Your task to perform on an android device: Show me popular videos on Youtube Image 0: 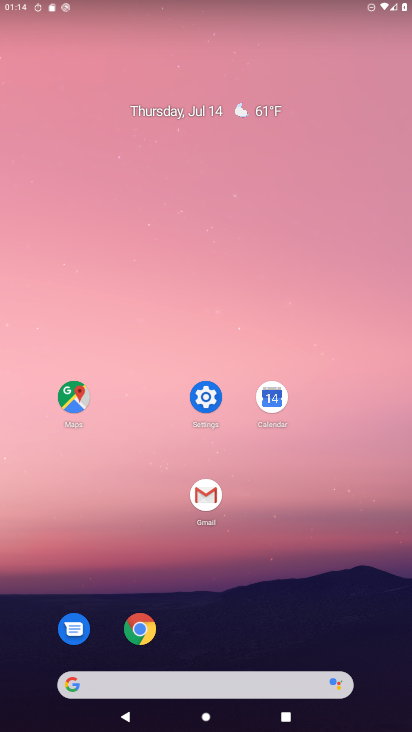
Step 0: drag from (335, 418) to (290, 152)
Your task to perform on an android device: Show me popular videos on Youtube Image 1: 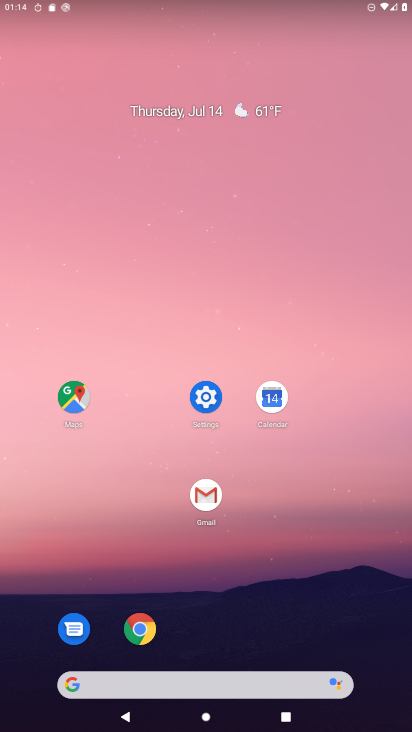
Step 1: drag from (385, 671) to (274, 106)
Your task to perform on an android device: Show me popular videos on Youtube Image 2: 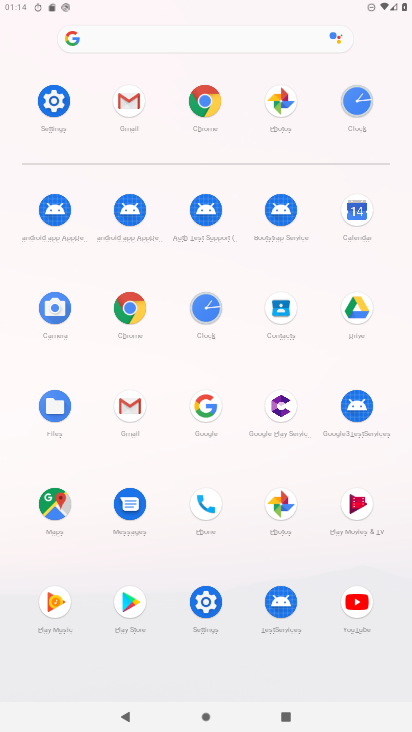
Step 2: click (348, 604)
Your task to perform on an android device: Show me popular videos on Youtube Image 3: 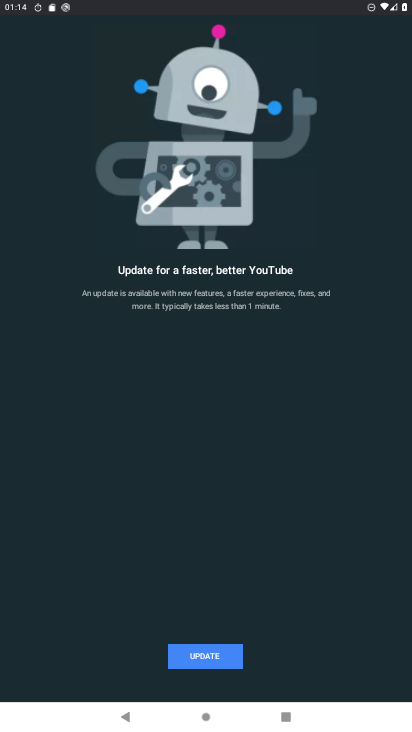
Step 3: drag from (228, 654) to (159, 654)
Your task to perform on an android device: Show me popular videos on Youtube Image 4: 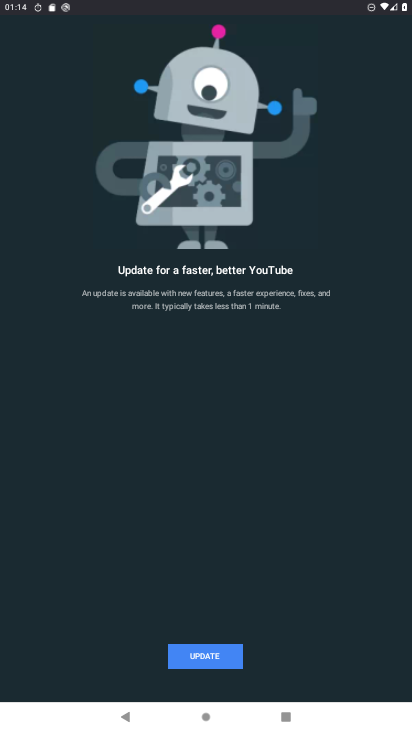
Step 4: click (208, 652)
Your task to perform on an android device: Show me popular videos on Youtube Image 5: 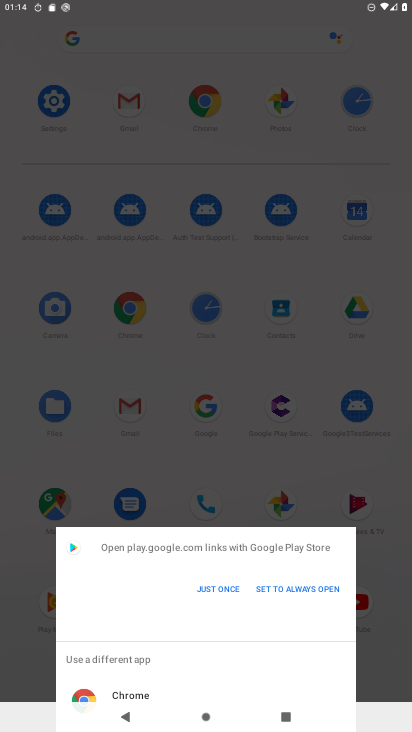
Step 5: click (206, 595)
Your task to perform on an android device: Show me popular videos on Youtube Image 6: 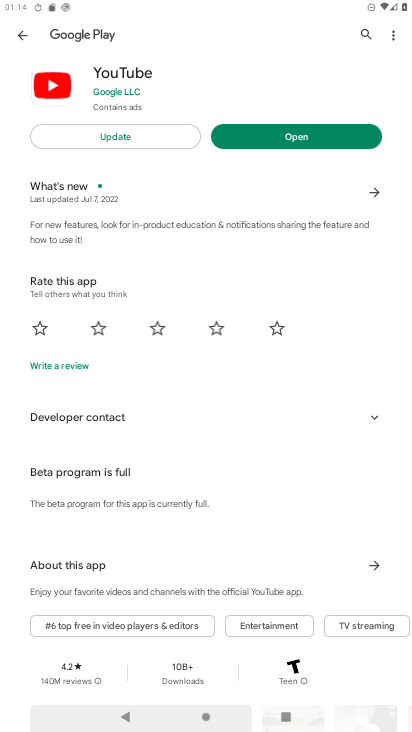
Step 6: click (168, 133)
Your task to perform on an android device: Show me popular videos on Youtube Image 7: 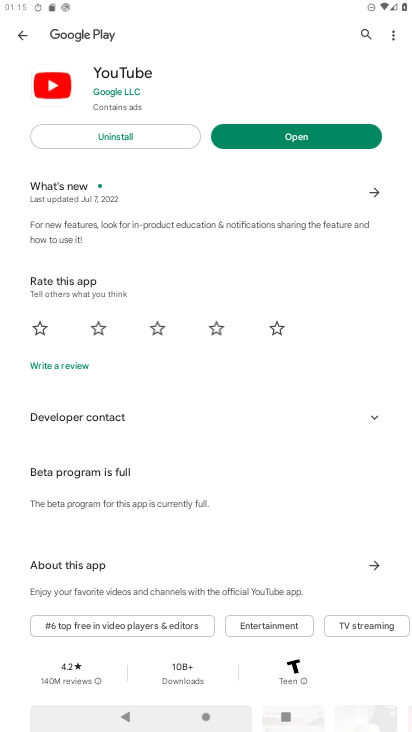
Step 7: click (310, 141)
Your task to perform on an android device: Show me popular videos on Youtube Image 8: 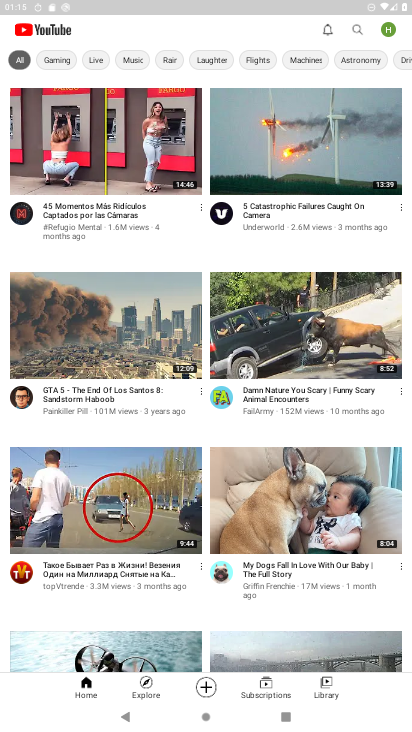
Step 8: drag from (319, 615) to (274, 155)
Your task to perform on an android device: Show me popular videos on Youtube Image 9: 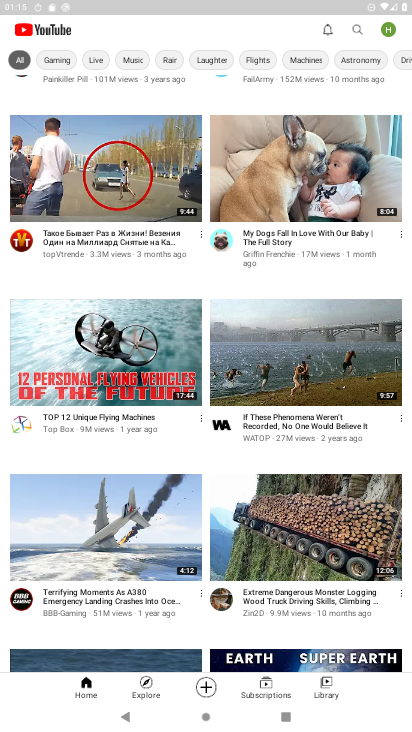
Step 9: drag from (217, 261) to (226, 674)
Your task to perform on an android device: Show me popular videos on Youtube Image 10: 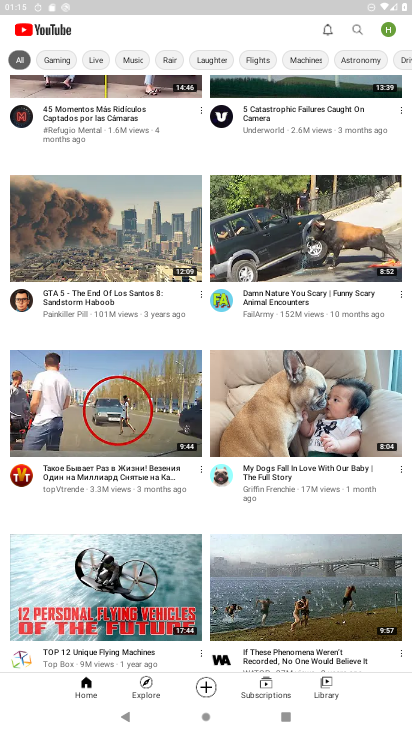
Step 10: click (359, 29)
Your task to perform on an android device: Show me popular videos on Youtube Image 11: 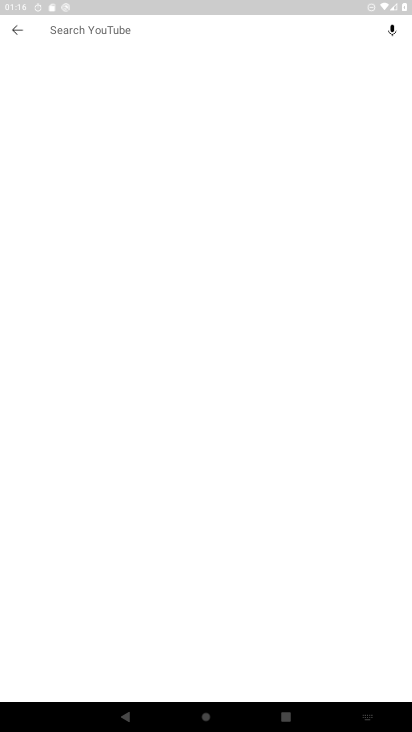
Step 11: type "popular videos on Youtube"
Your task to perform on an android device: Show me popular videos on Youtube Image 12: 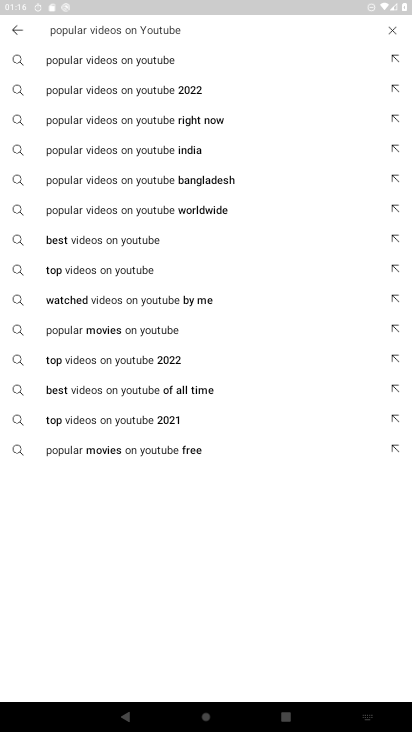
Step 12: click (154, 51)
Your task to perform on an android device: Show me popular videos on Youtube Image 13: 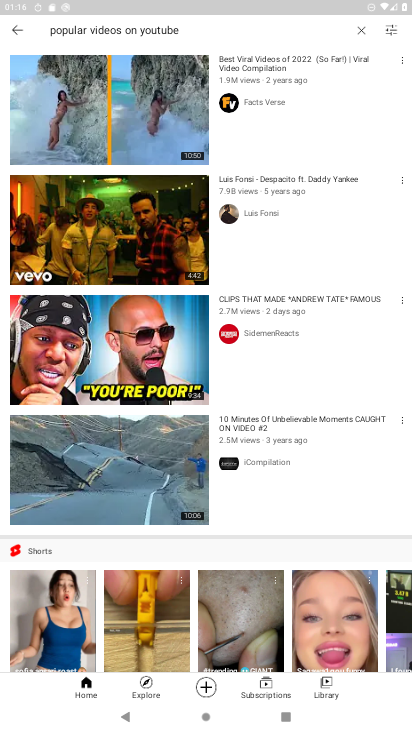
Step 13: task complete